Your task to perform on an android device: Is it going to rain this weekend? Image 0: 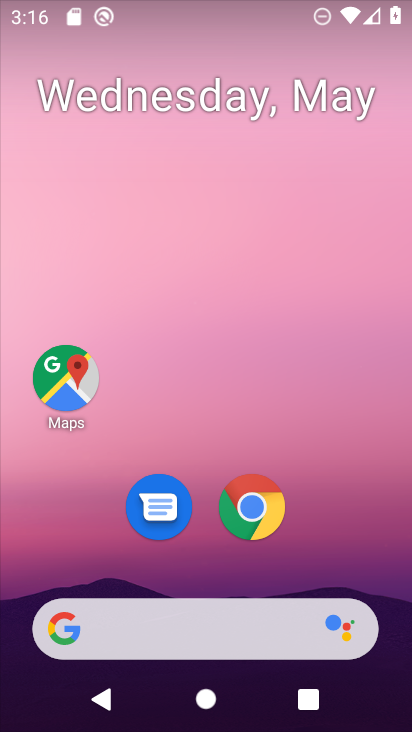
Step 0: click (179, 630)
Your task to perform on an android device: Is it going to rain this weekend? Image 1: 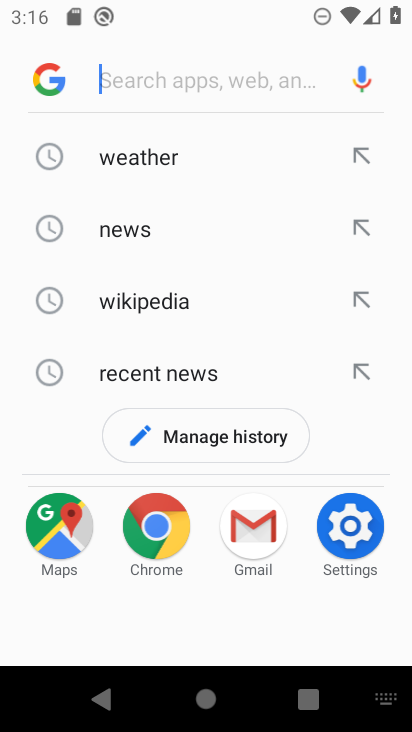
Step 1: click (135, 161)
Your task to perform on an android device: Is it going to rain this weekend? Image 2: 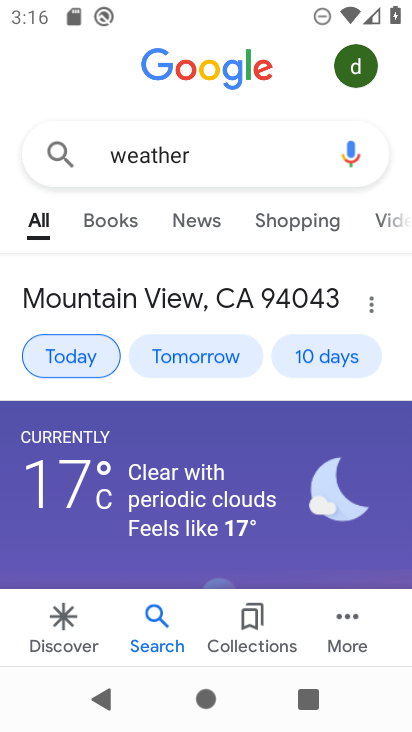
Step 2: drag from (218, 423) to (250, 166)
Your task to perform on an android device: Is it going to rain this weekend? Image 3: 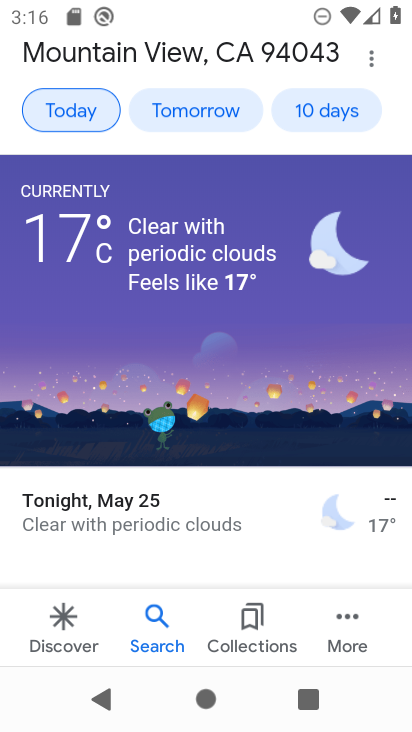
Step 3: click (335, 112)
Your task to perform on an android device: Is it going to rain this weekend? Image 4: 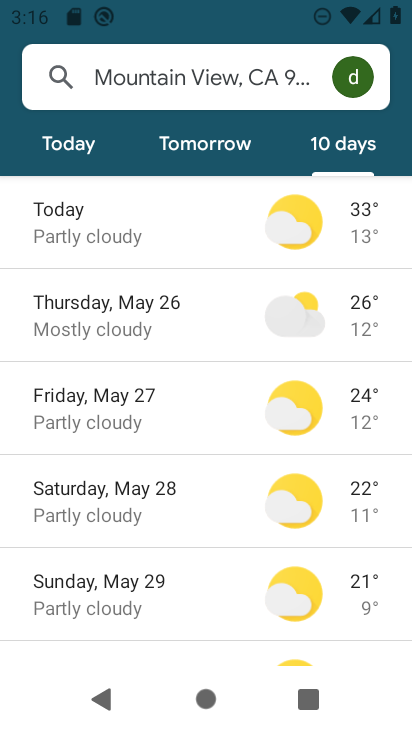
Step 4: task complete